Your task to perform on an android device: Go to privacy settings Image 0: 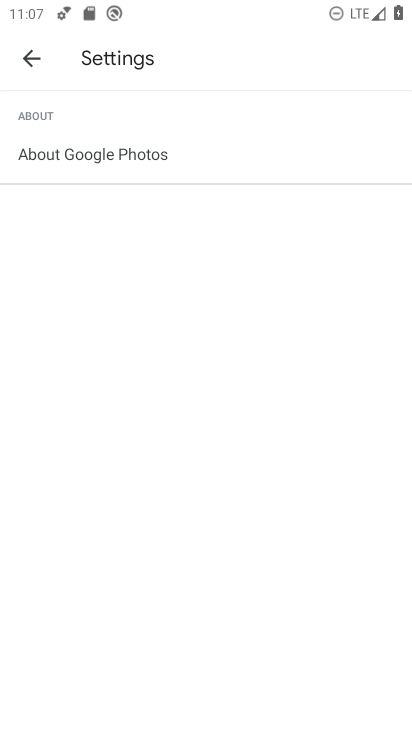
Step 0: press home button
Your task to perform on an android device: Go to privacy settings Image 1: 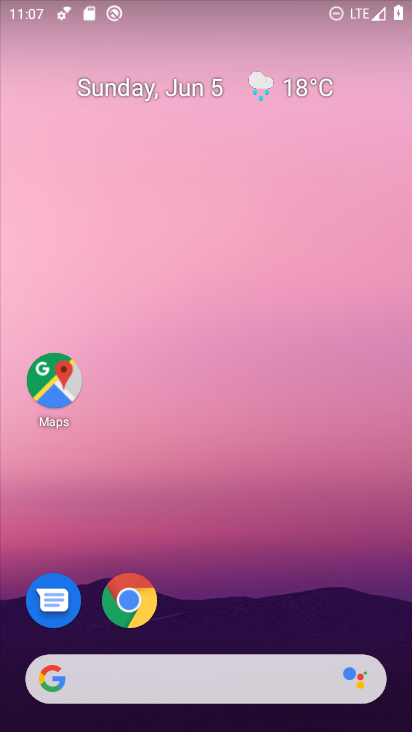
Step 1: drag from (220, 611) to (232, 202)
Your task to perform on an android device: Go to privacy settings Image 2: 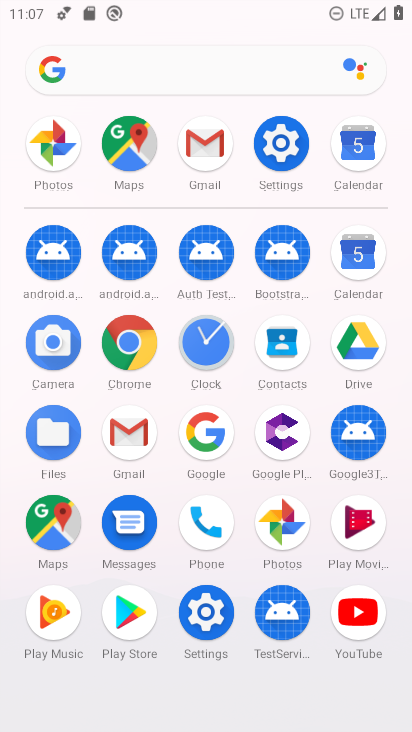
Step 2: click (275, 153)
Your task to perform on an android device: Go to privacy settings Image 3: 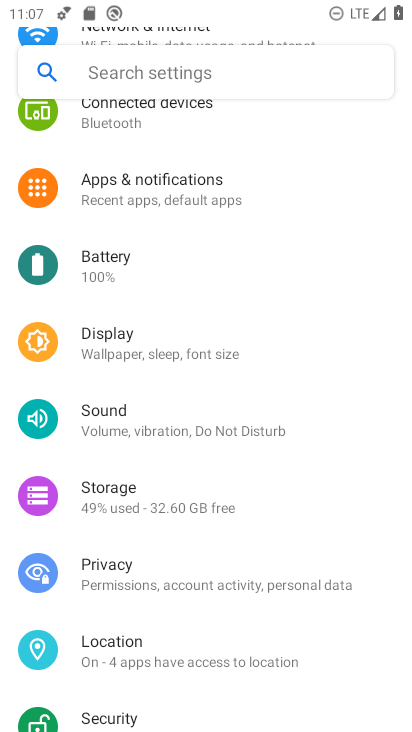
Step 3: click (172, 593)
Your task to perform on an android device: Go to privacy settings Image 4: 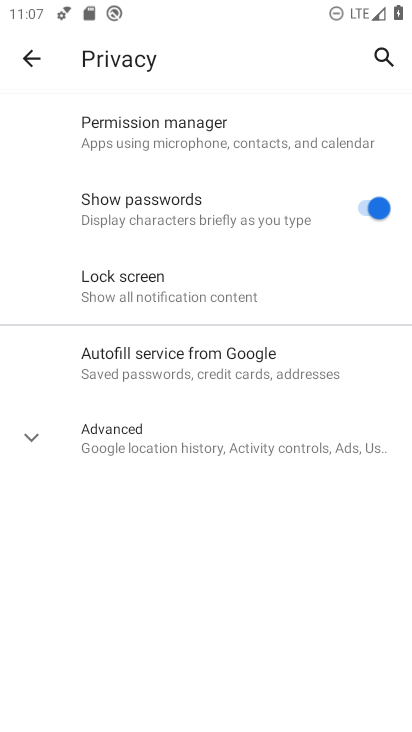
Step 4: task complete